Your task to perform on an android device: see tabs open on other devices in the chrome app Image 0: 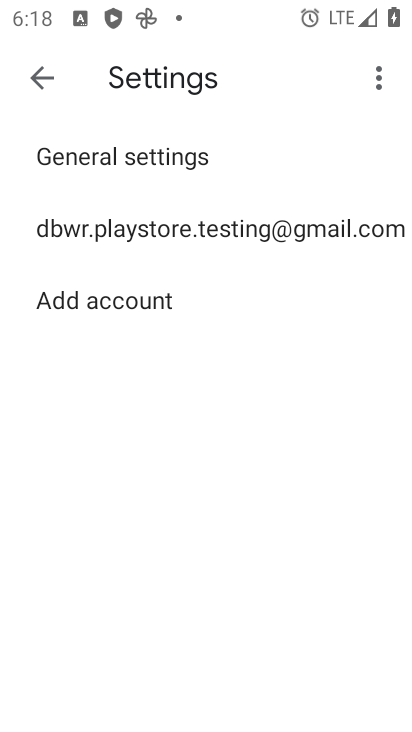
Step 0: press home button
Your task to perform on an android device: see tabs open on other devices in the chrome app Image 1: 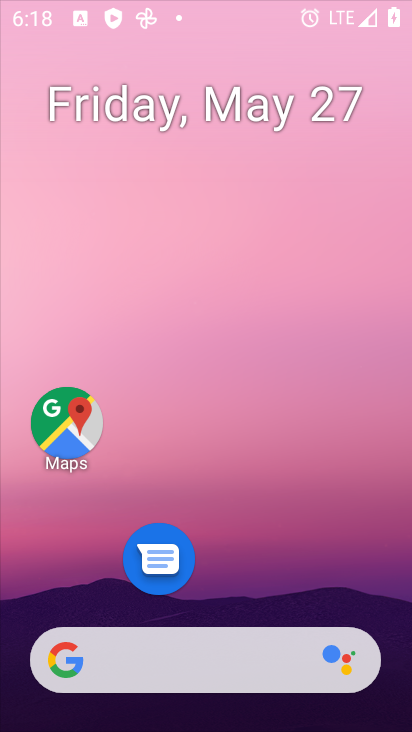
Step 1: drag from (308, 657) to (351, 19)
Your task to perform on an android device: see tabs open on other devices in the chrome app Image 2: 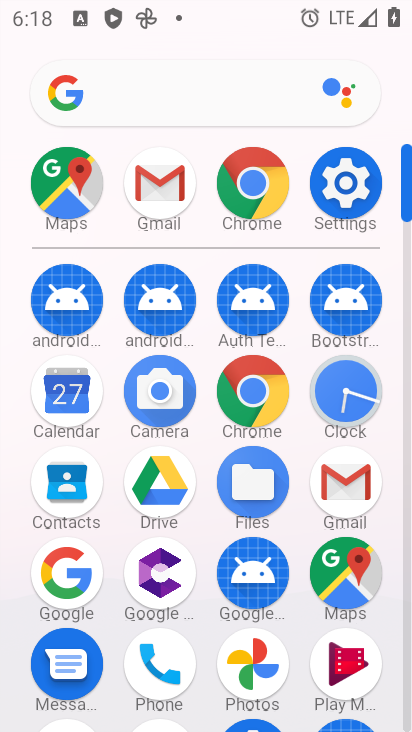
Step 2: click (265, 405)
Your task to perform on an android device: see tabs open on other devices in the chrome app Image 3: 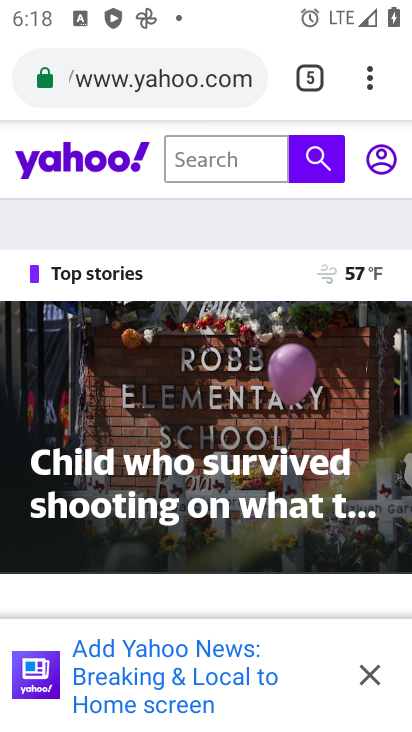
Step 3: task complete